Your task to perform on an android device: Open display settings Image 0: 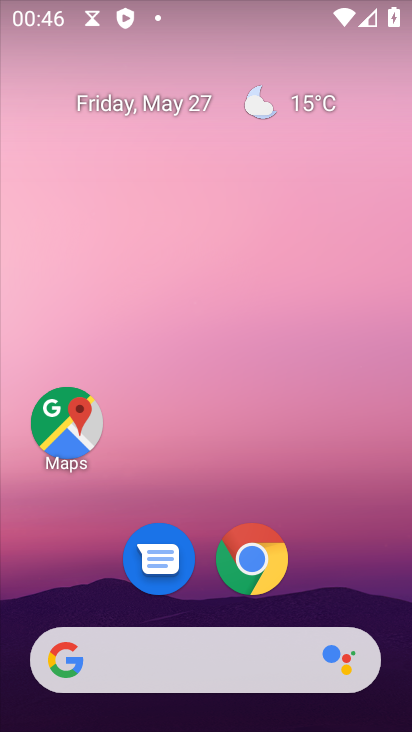
Step 0: drag from (328, 589) to (284, 2)
Your task to perform on an android device: Open display settings Image 1: 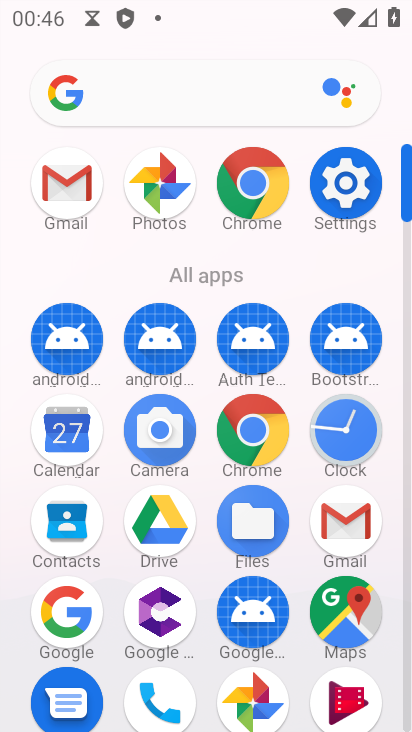
Step 1: click (352, 176)
Your task to perform on an android device: Open display settings Image 2: 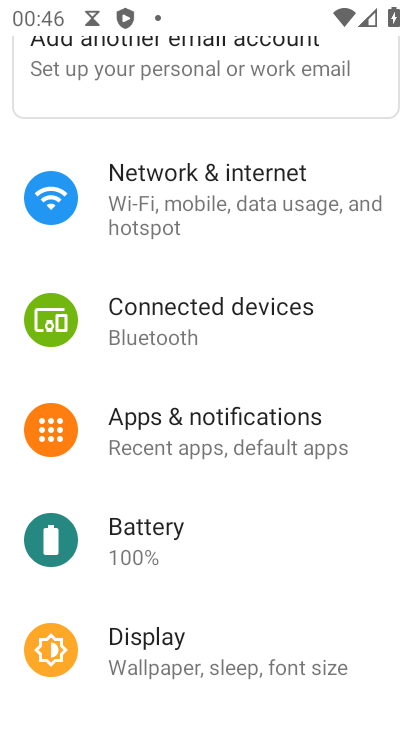
Step 2: click (203, 619)
Your task to perform on an android device: Open display settings Image 3: 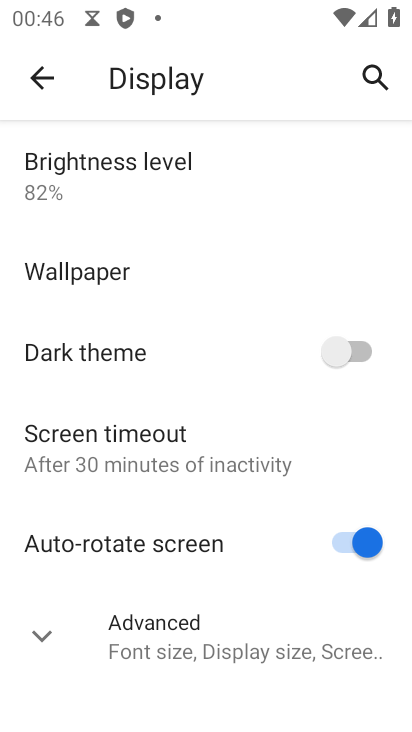
Step 3: task complete